Your task to perform on an android device: move an email to a new category in the gmail app Image 0: 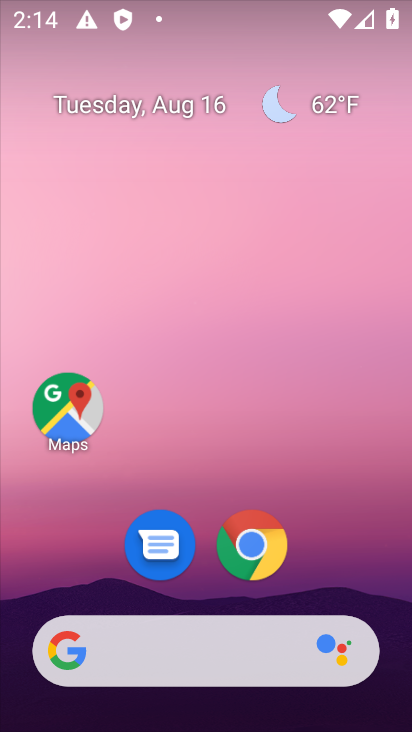
Step 0: drag from (229, 612) to (228, 279)
Your task to perform on an android device: move an email to a new category in the gmail app Image 1: 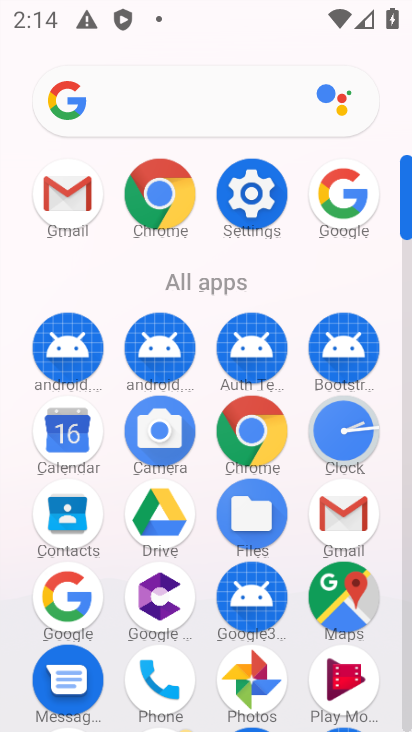
Step 1: click (347, 512)
Your task to perform on an android device: move an email to a new category in the gmail app Image 2: 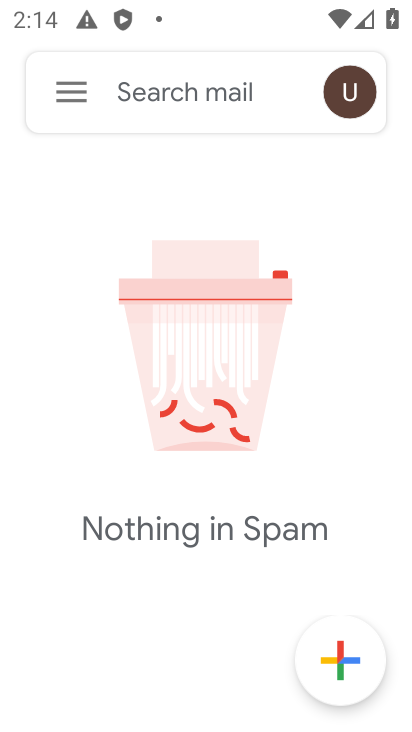
Step 2: press home button
Your task to perform on an android device: move an email to a new category in the gmail app Image 3: 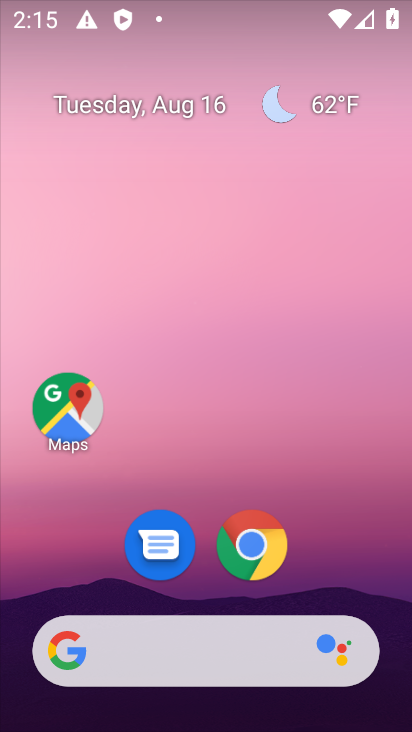
Step 3: drag from (218, 586) to (183, 334)
Your task to perform on an android device: move an email to a new category in the gmail app Image 4: 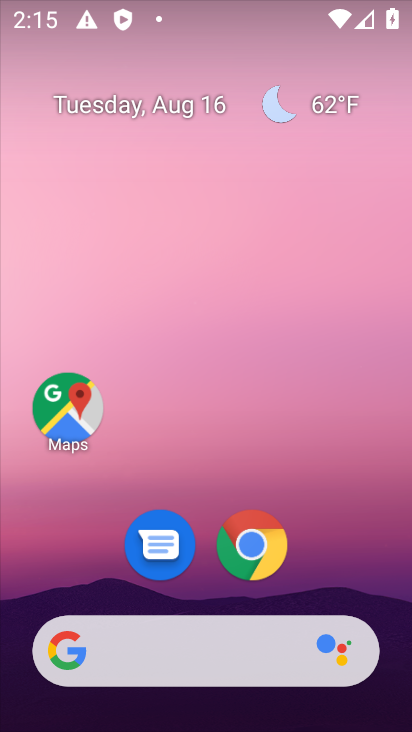
Step 4: drag from (153, 488) to (153, 229)
Your task to perform on an android device: move an email to a new category in the gmail app Image 5: 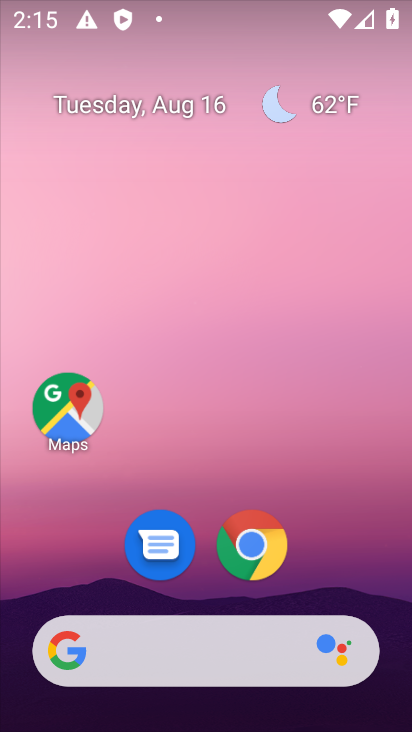
Step 5: drag from (190, 578) to (190, 207)
Your task to perform on an android device: move an email to a new category in the gmail app Image 6: 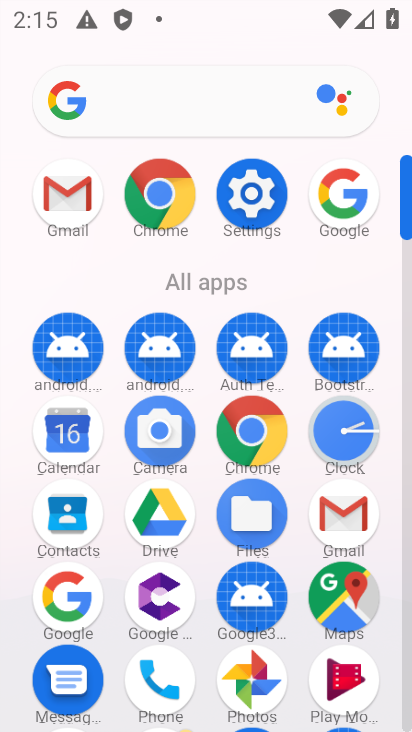
Step 6: click (83, 191)
Your task to perform on an android device: move an email to a new category in the gmail app Image 7: 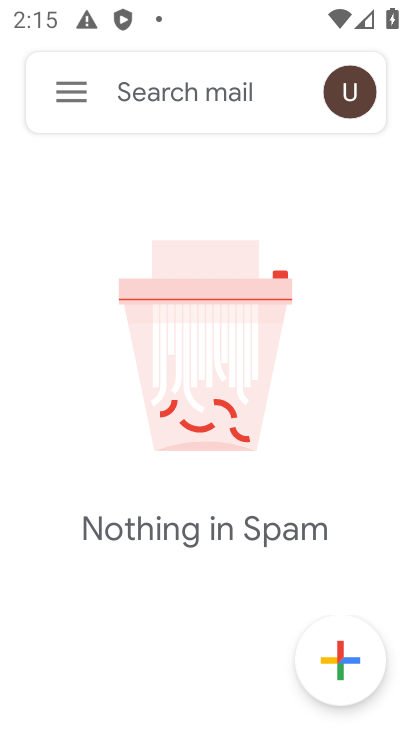
Step 7: click (53, 96)
Your task to perform on an android device: move an email to a new category in the gmail app Image 8: 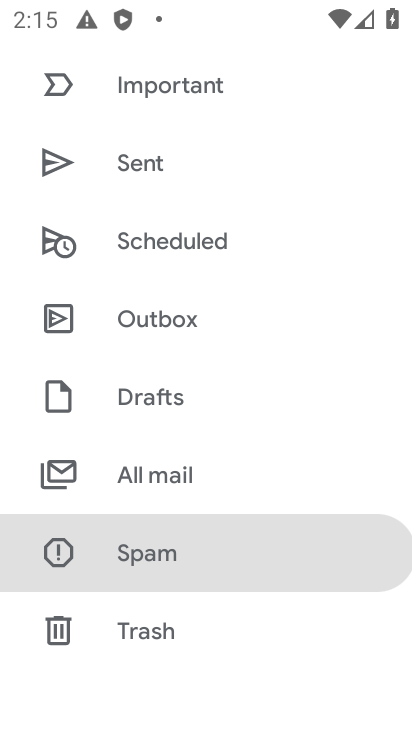
Step 8: drag from (167, 104) to (170, 500)
Your task to perform on an android device: move an email to a new category in the gmail app Image 9: 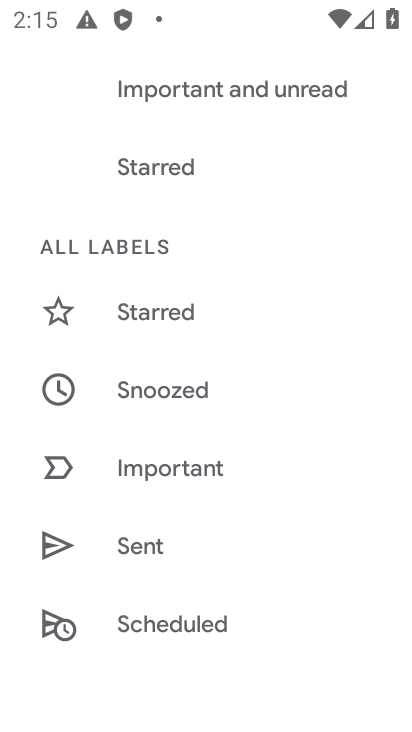
Step 9: drag from (162, 183) to (168, 554)
Your task to perform on an android device: move an email to a new category in the gmail app Image 10: 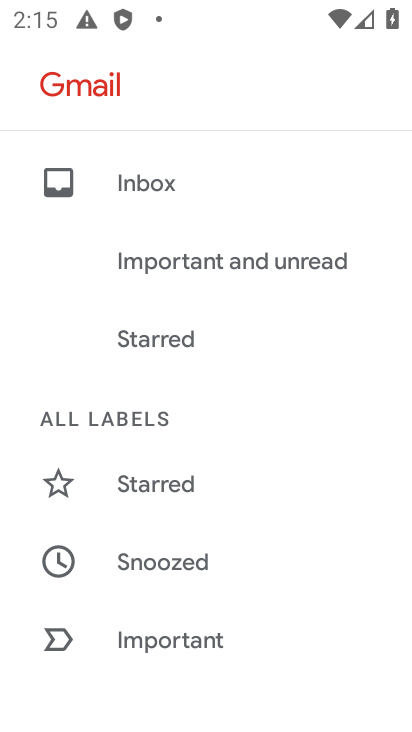
Step 10: click (133, 166)
Your task to perform on an android device: move an email to a new category in the gmail app Image 11: 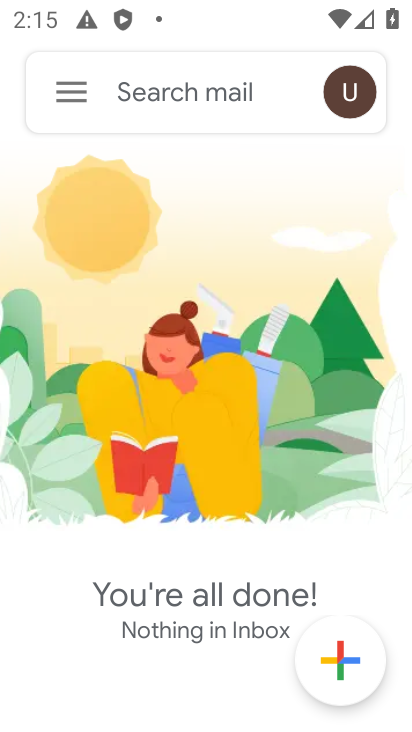
Step 11: task complete